Your task to perform on an android device: move a message to another label in the gmail app Image 0: 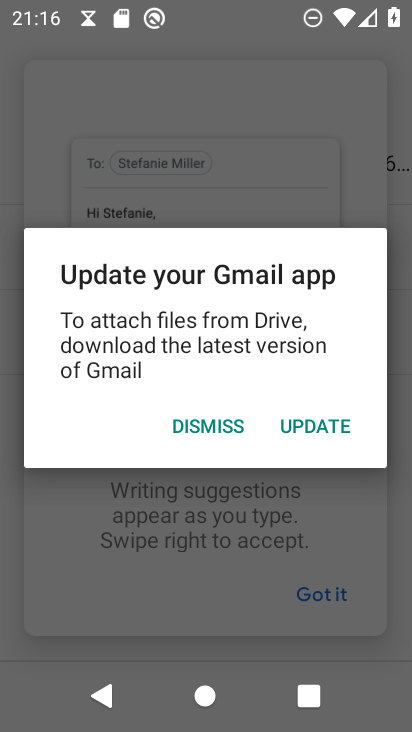
Step 0: press home button
Your task to perform on an android device: move a message to another label in the gmail app Image 1: 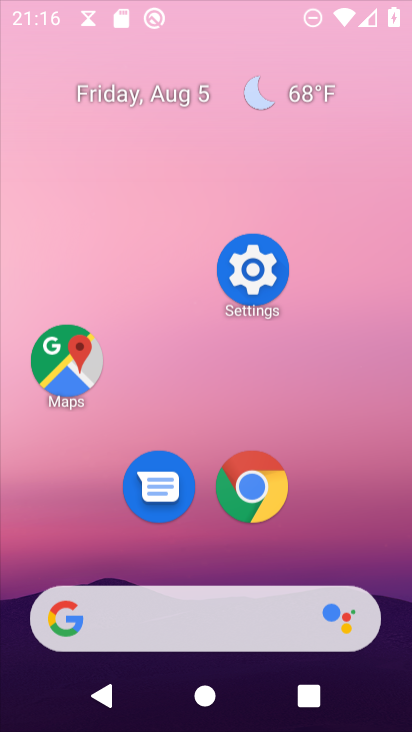
Step 1: press home button
Your task to perform on an android device: move a message to another label in the gmail app Image 2: 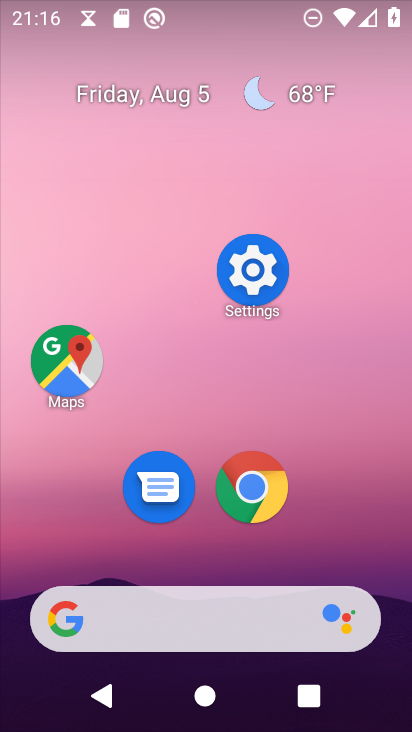
Step 2: drag from (258, 599) to (374, 42)
Your task to perform on an android device: move a message to another label in the gmail app Image 3: 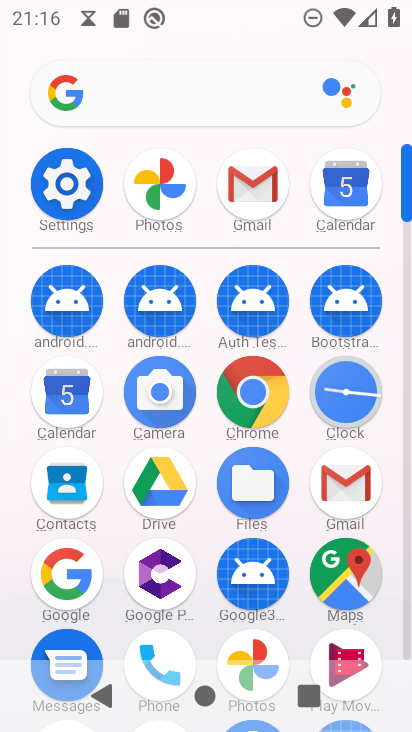
Step 3: click (257, 185)
Your task to perform on an android device: move a message to another label in the gmail app Image 4: 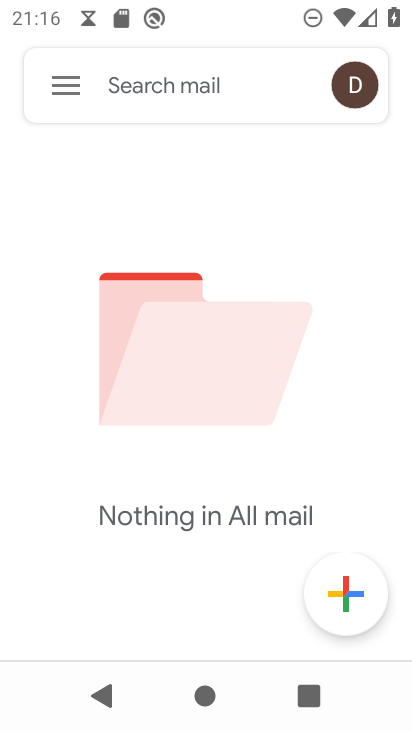
Step 4: task complete